Your task to perform on an android device: Add "logitech g502" to the cart on newegg, then select checkout. Image 0: 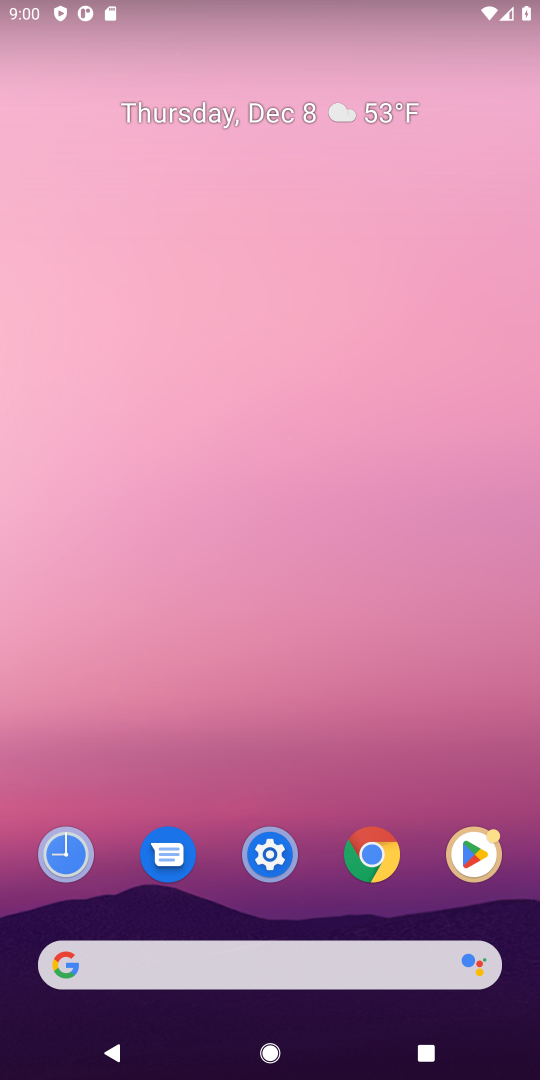
Step 0: press home button
Your task to perform on an android device: Add "logitech g502" to the cart on newegg, then select checkout. Image 1: 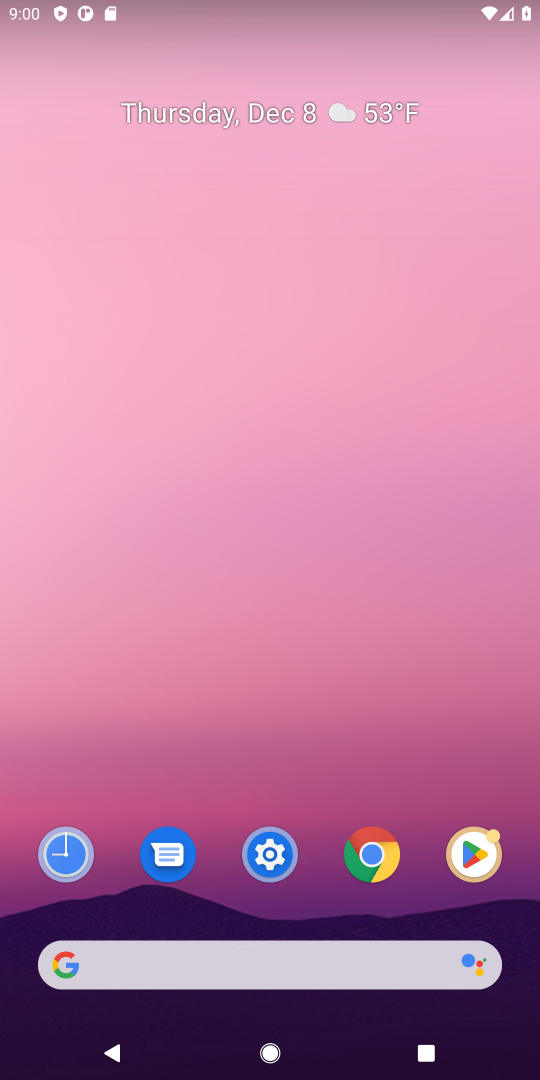
Step 1: click (92, 966)
Your task to perform on an android device: Add "logitech g502" to the cart on newegg, then select checkout. Image 2: 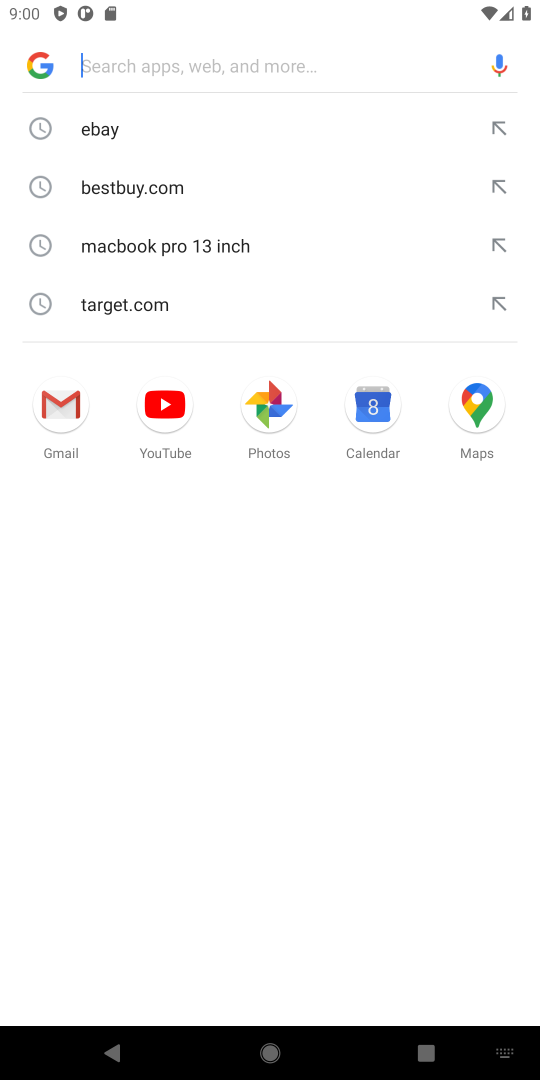
Step 2: press enter
Your task to perform on an android device: Add "logitech g502" to the cart on newegg, then select checkout. Image 3: 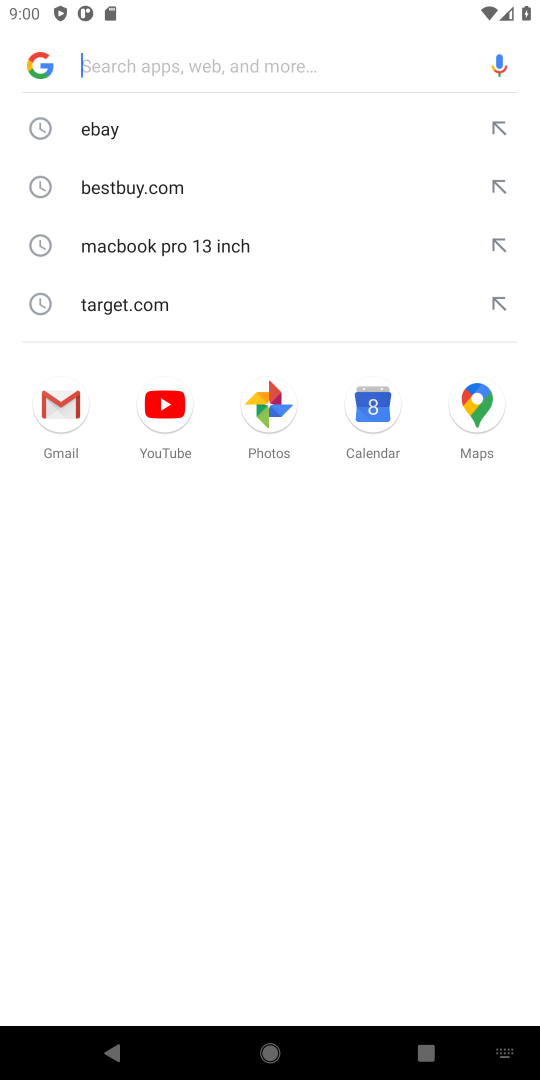
Step 3: type "newegg"
Your task to perform on an android device: Add "logitech g502" to the cart on newegg, then select checkout. Image 4: 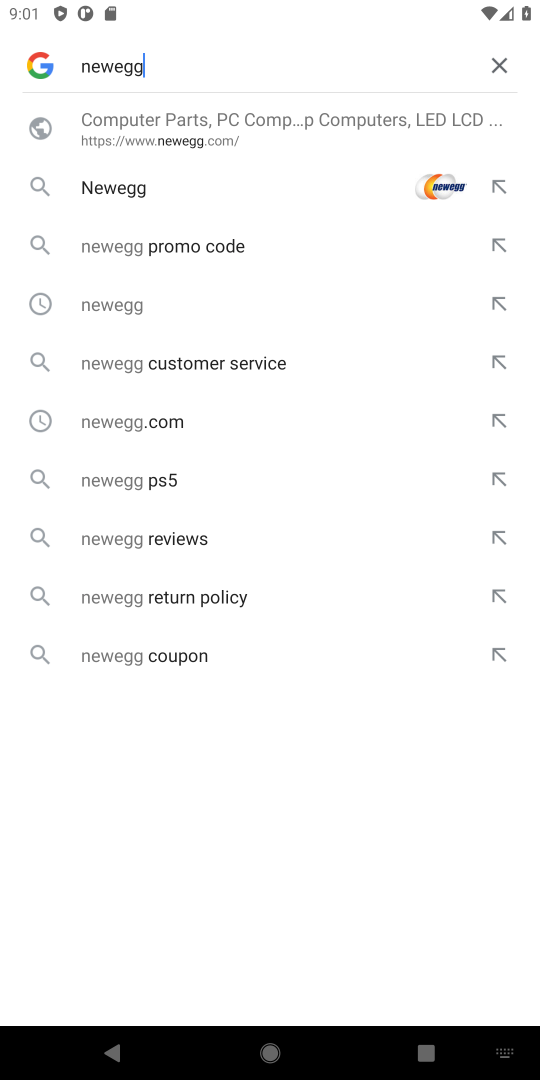
Step 4: press enter
Your task to perform on an android device: Add "logitech g502" to the cart on newegg, then select checkout. Image 5: 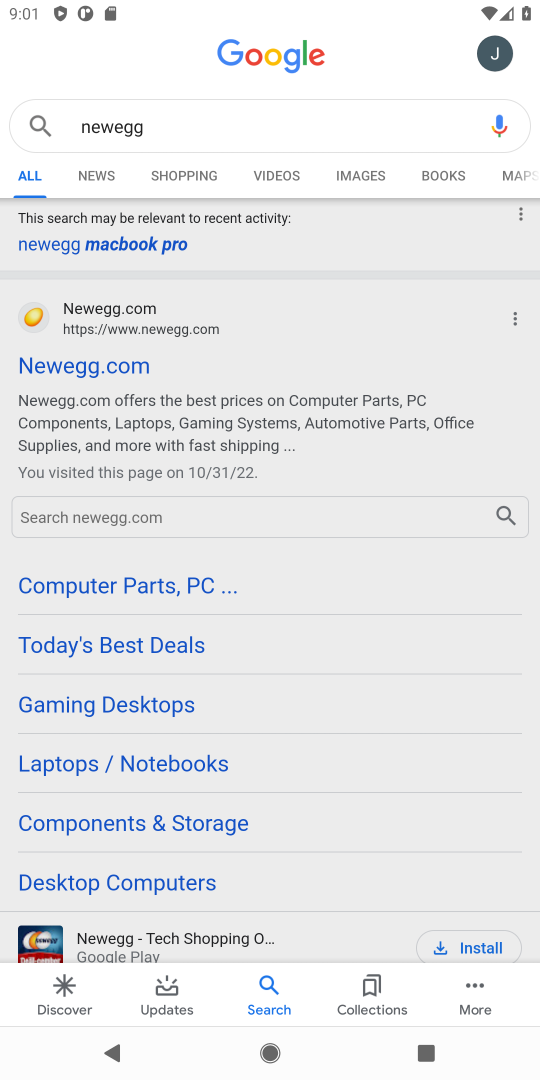
Step 5: click (85, 367)
Your task to perform on an android device: Add "logitech g502" to the cart on newegg, then select checkout. Image 6: 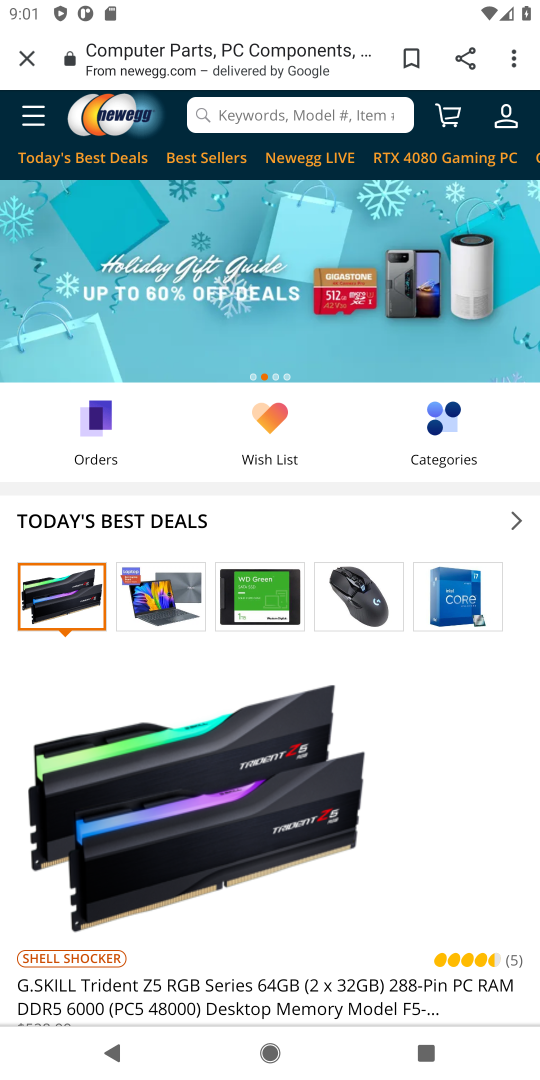
Step 6: click (215, 120)
Your task to perform on an android device: Add "logitech g502" to the cart on newegg, then select checkout. Image 7: 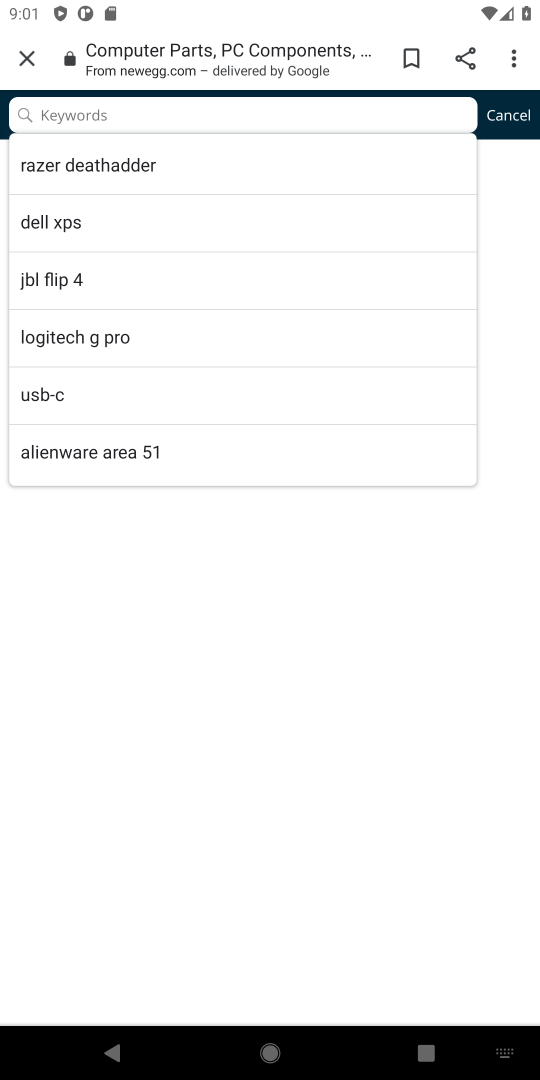
Step 7: type "logitech g502"
Your task to perform on an android device: Add "logitech g502" to the cart on newegg, then select checkout. Image 8: 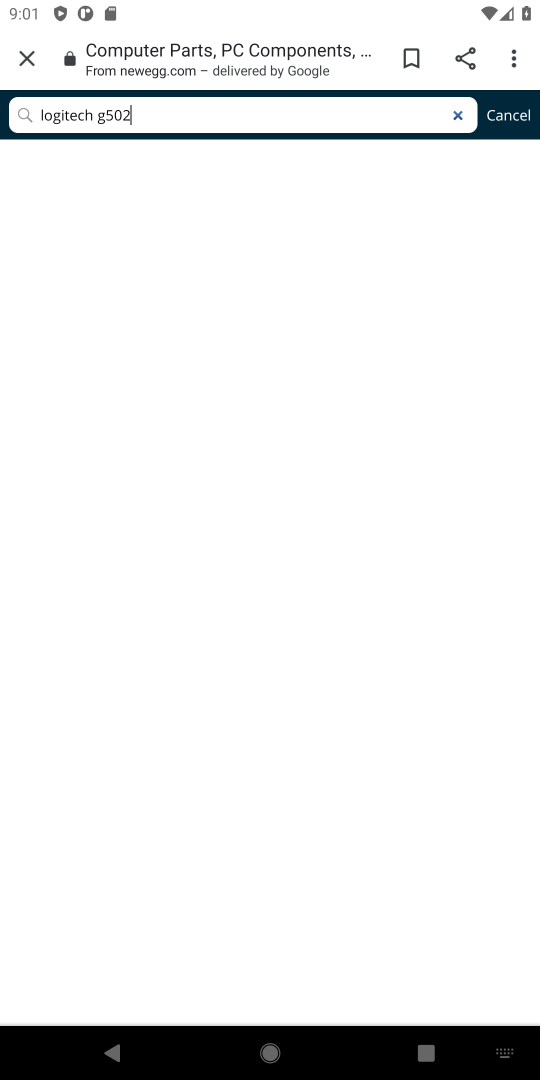
Step 8: press enter
Your task to perform on an android device: Add "logitech g502" to the cart on newegg, then select checkout. Image 9: 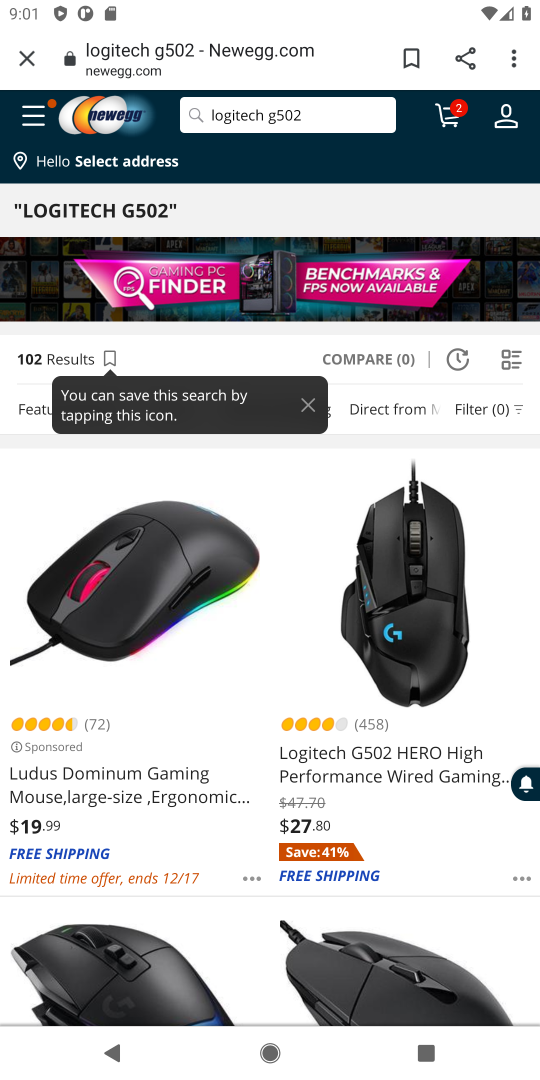
Step 9: click (382, 751)
Your task to perform on an android device: Add "logitech g502" to the cart on newegg, then select checkout. Image 10: 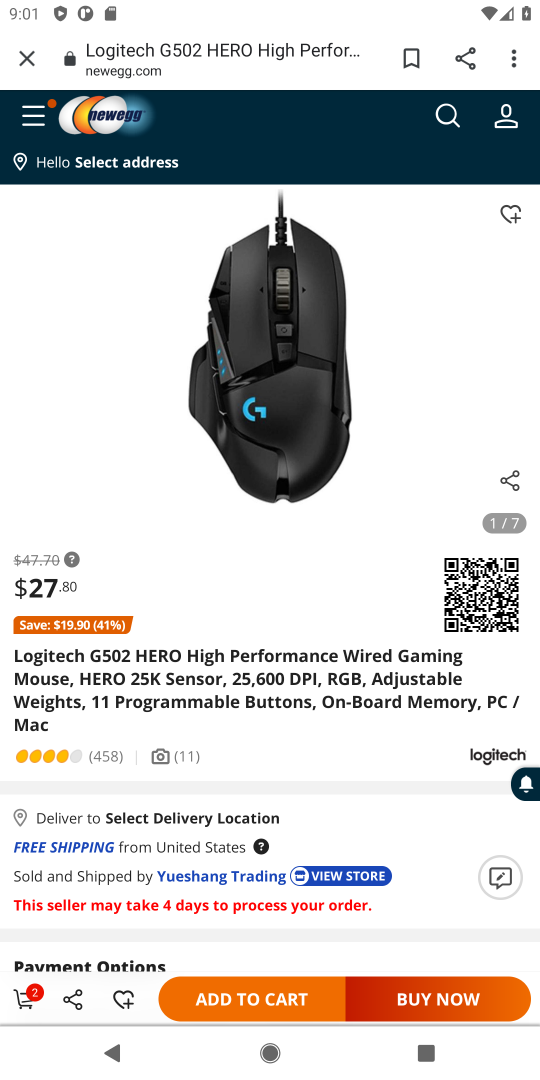
Step 10: click (235, 997)
Your task to perform on an android device: Add "logitech g502" to the cart on newegg, then select checkout. Image 11: 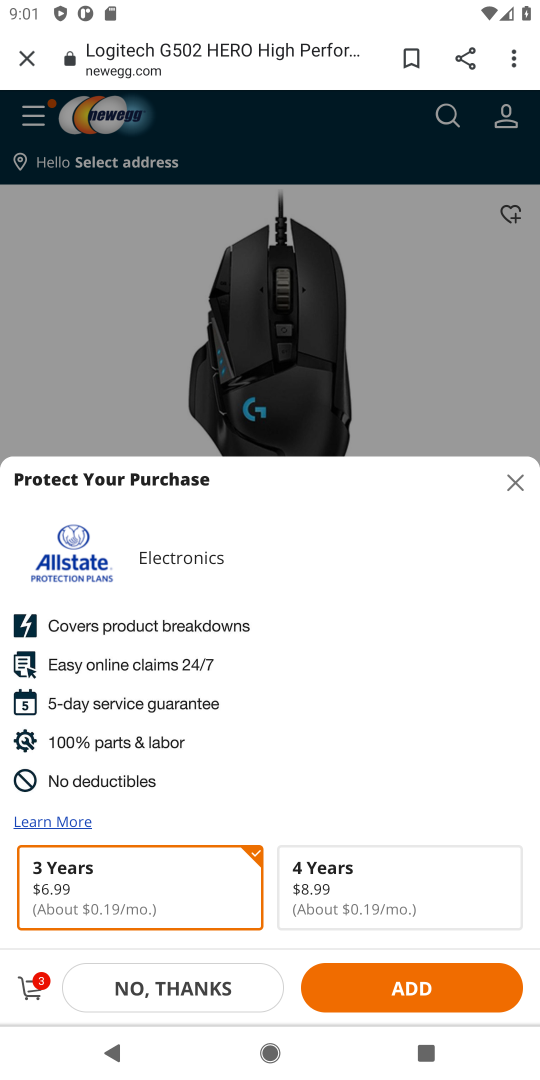
Step 11: click (180, 988)
Your task to perform on an android device: Add "logitech g502" to the cart on newegg, then select checkout. Image 12: 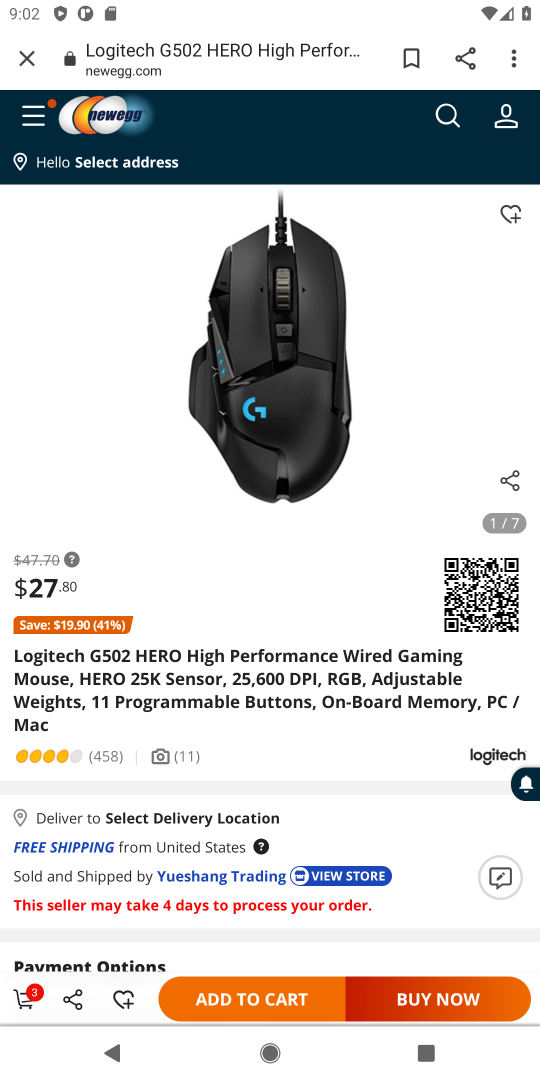
Step 12: click (25, 994)
Your task to perform on an android device: Add "logitech g502" to the cart on newegg, then select checkout. Image 13: 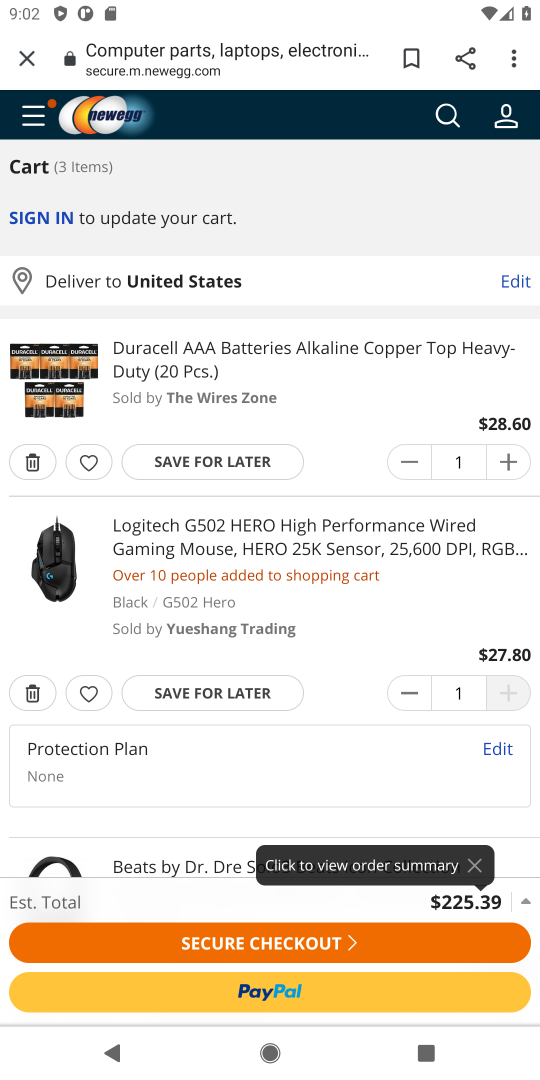
Step 13: click (234, 948)
Your task to perform on an android device: Add "logitech g502" to the cart on newegg, then select checkout. Image 14: 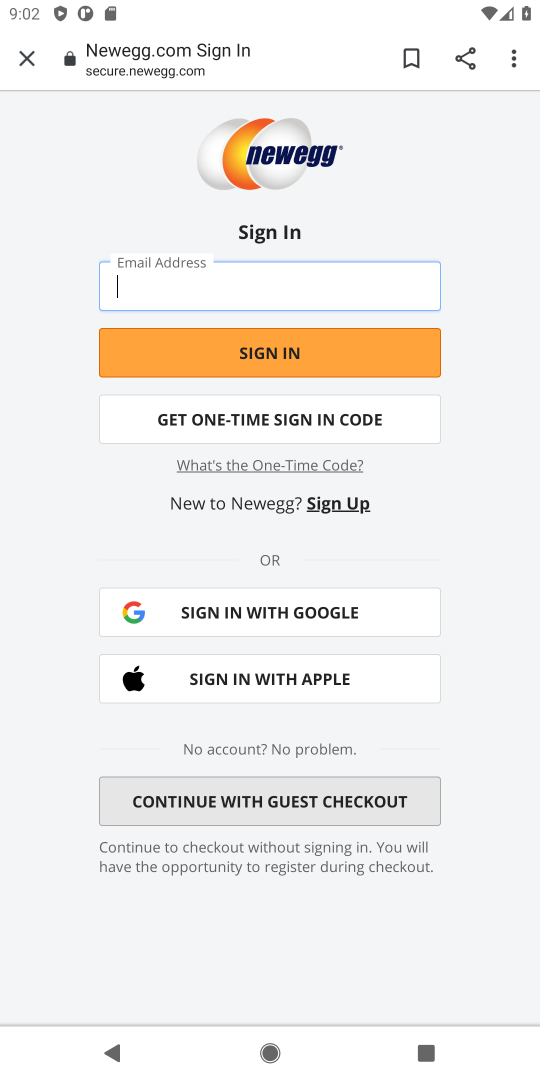
Step 14: task complete